Your task to perform on an android device: uninstall "Move to iOS" Image 0: 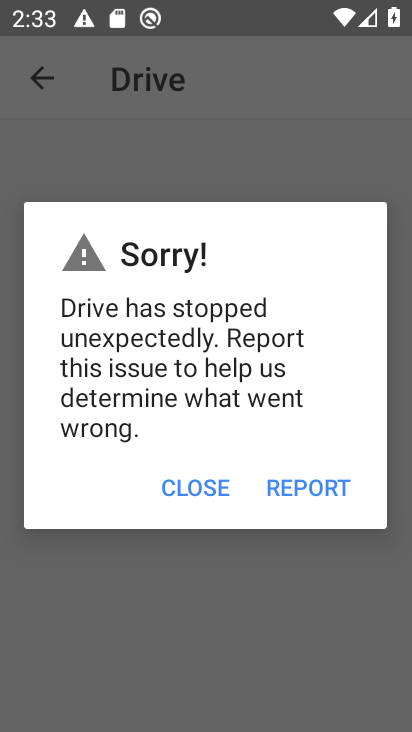
Step 0: press back button
Your task to perform on an android device: uninstall "Move to iOS" Image 1: 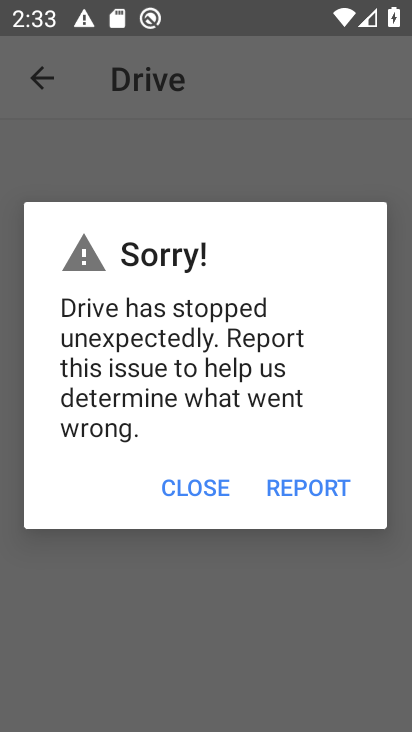
Step 1: press back button
Your task to perform on an android device: uninstall "Move to iOS" Image 2: 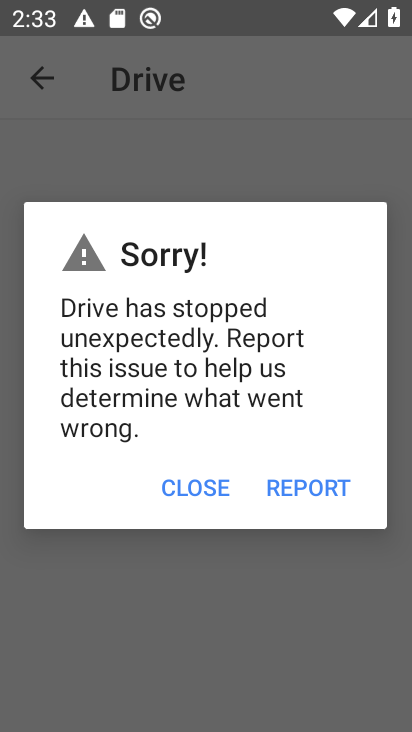
Step 2: press home button
Your task to perform on an android device: uninstall "Move to iOS" Image 3: 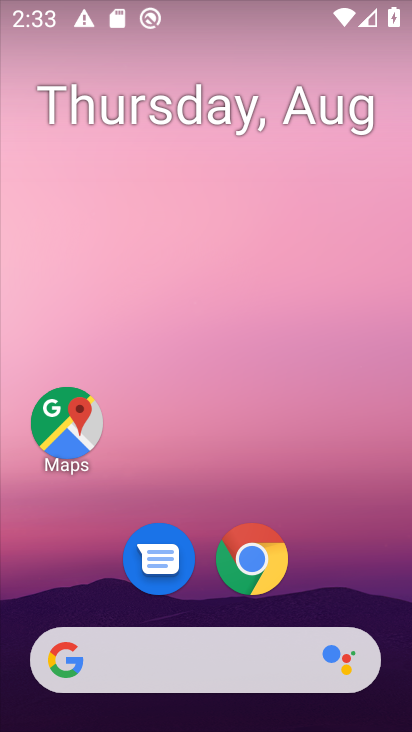
Step 3: drag from (214, 447) to (276, 3)
Your task to perform on an android device: uninstall "Move to iOS" Image 4: 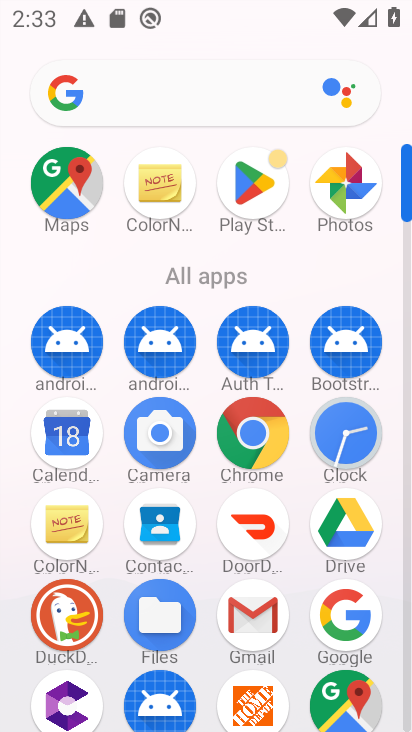
Step 4: click (253, 181)
Your task to perform on an android device: uninstall "Move to iOS" Image 5: 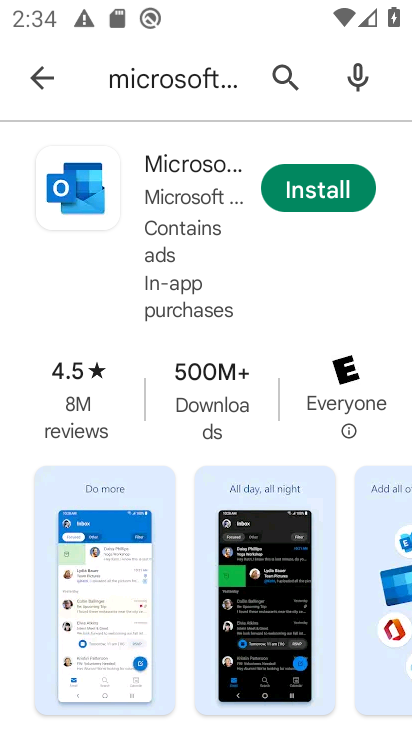
Step 5: click (274, 68)
Your task to perform on an android device: uninstall "Move to iOS" Image 6: 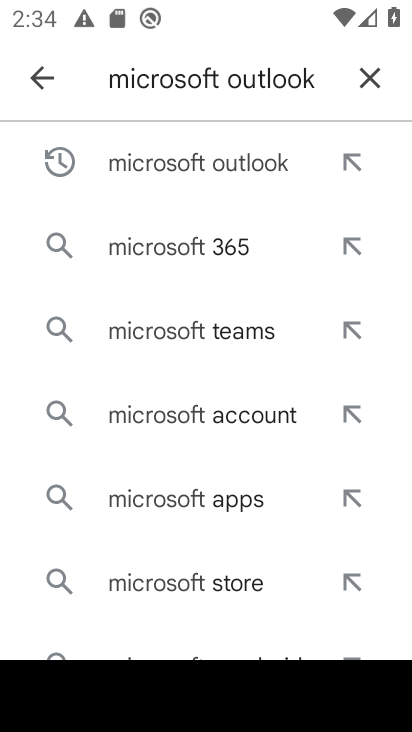
Step 6: click (371, 74)
Your task to perform on an android device: uninstall "Move to iOS" Image 7: 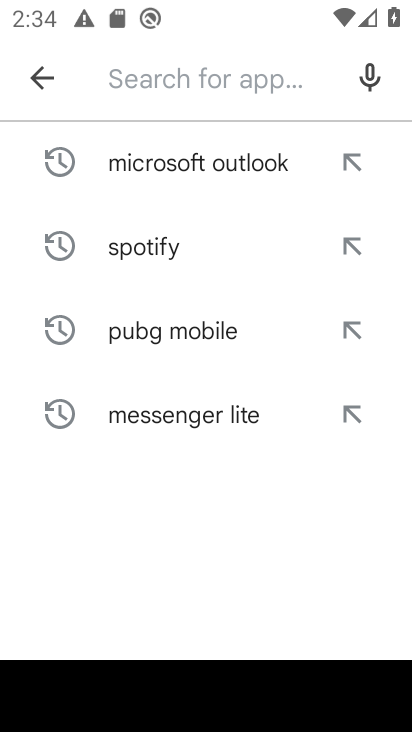
Step 7: type "ios"
Your task to perform on an android device: uninstall "Move to iOS" Image 8: 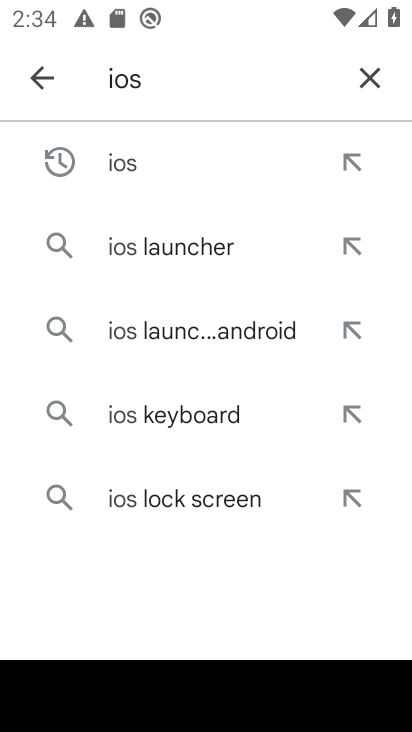
Step 8: click (150, 164)
Your task to perform on an android device: uninstall "Move to iOS" Image 9: 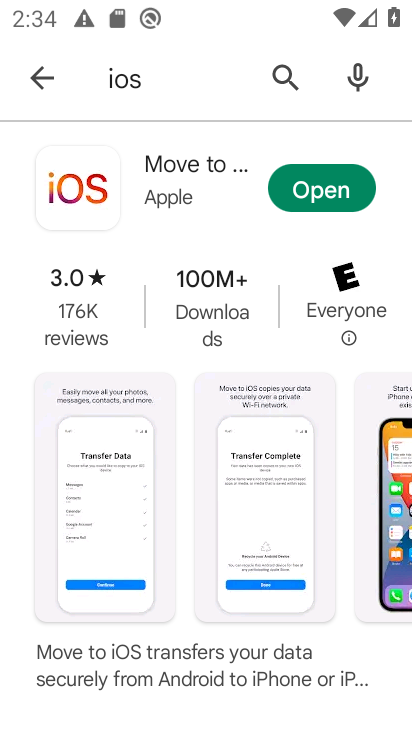
Step 9: click (327, 194)
Your task to perform on an android device: uninstall "Move to iOS" Image 10: 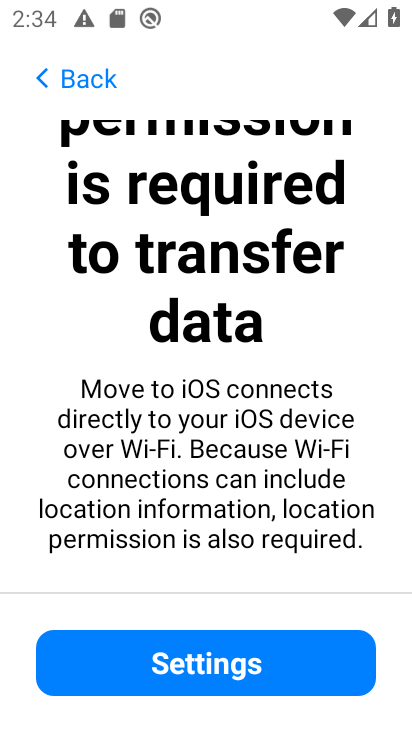
Step 10: press back button
Your task to perform on an android device: uninstall "Move to iOS" Image 11: 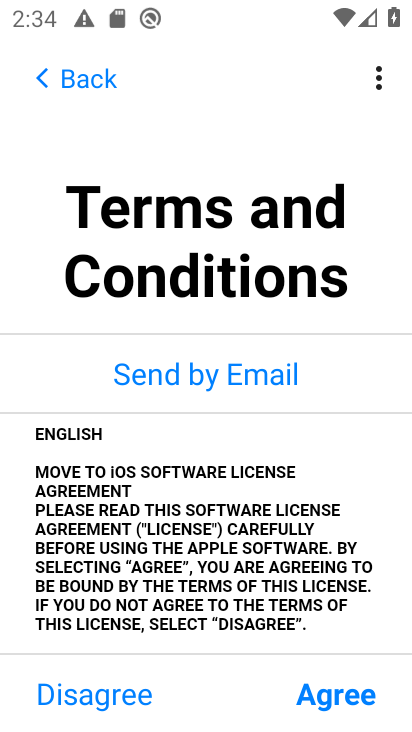
Step 11: press back button
Your task to perform on an android device: uninstall "Move to iOS" Image 12: 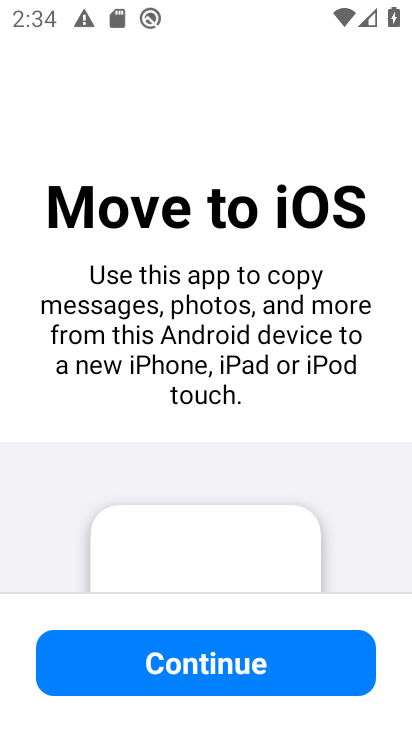
Step 12: press back button
Your task to perform on an android device: uninstall "Move to iOS" Image 13: 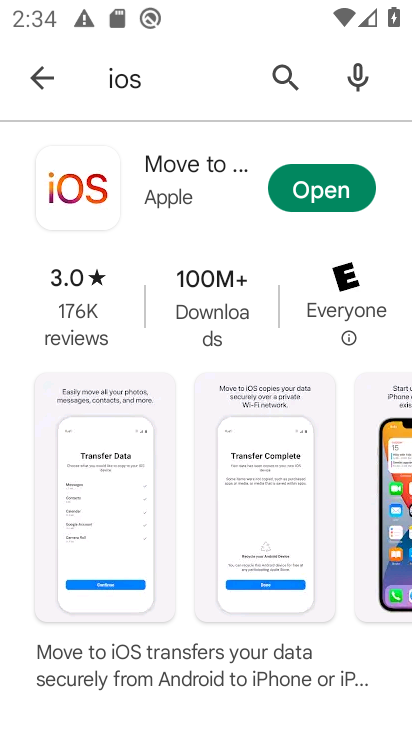
Step 13: click (186, 213)
Your task to perform on an android device: uninstall "Move to iOS" Image 14: 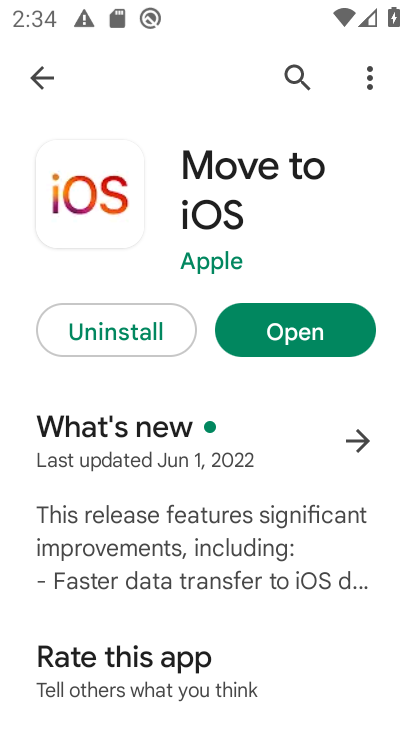
Step 14: click (69, 334)
Your task to perform on an android device: uninstall "Move to iOS" Image 15: 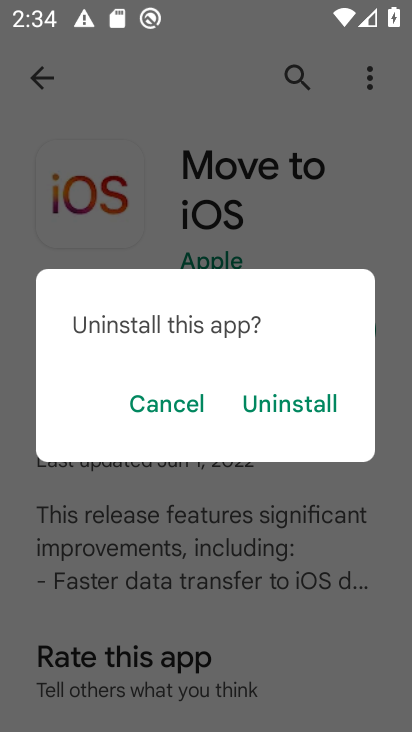
Step 15: click (313, 408)
Your task to perform on an android device: uninstall "Move to iOS" Image 16: 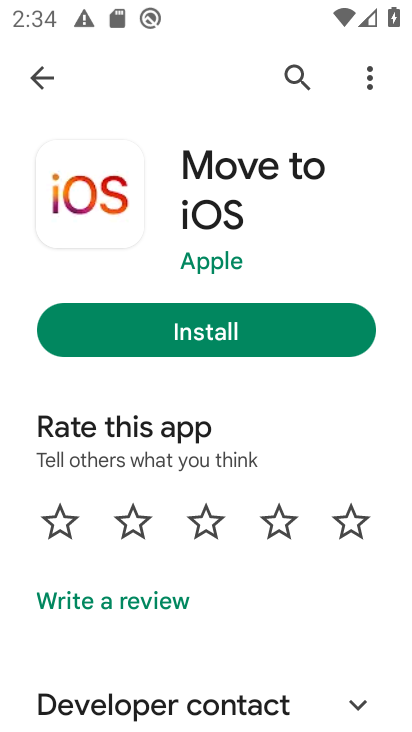
Step 16: task complete